Your task to perform on an android device: Go to Google maps Image 0: 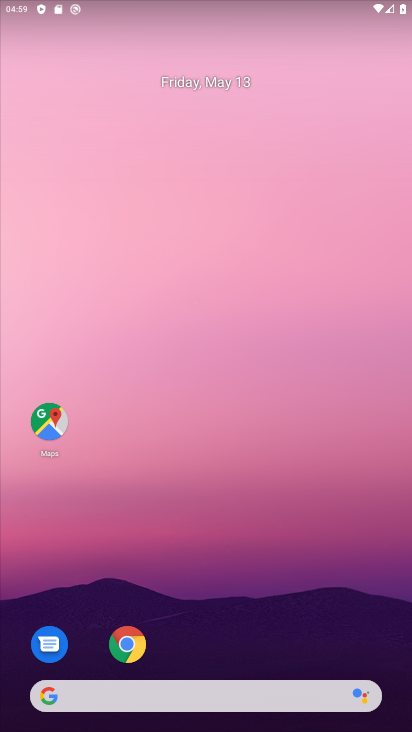
Step 0: click (40, 409)
Your task to perform on an android device: Go to Google maps Image 1: 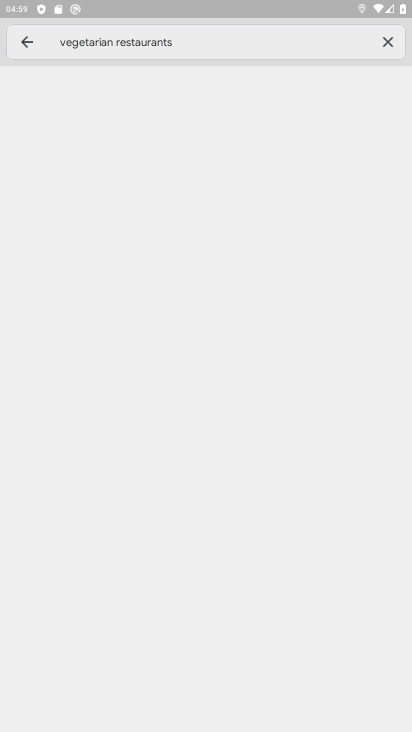
Step 1: task complete